Your task to perform on an android device: Do I have any events today? Image 0: 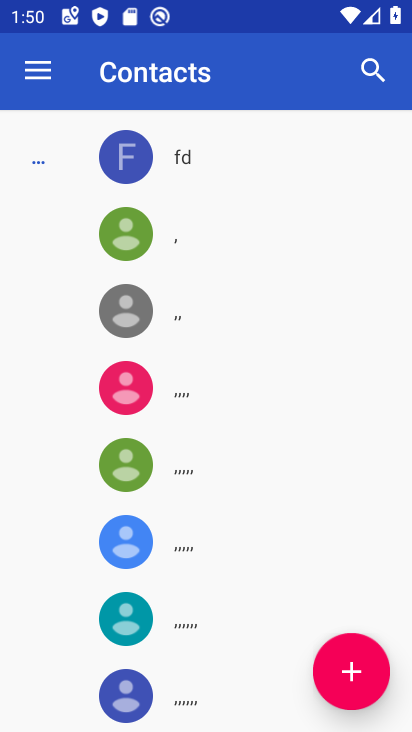
Step 0: press home button
Your task to perform on an android device: Do I have any events today? Image 1: 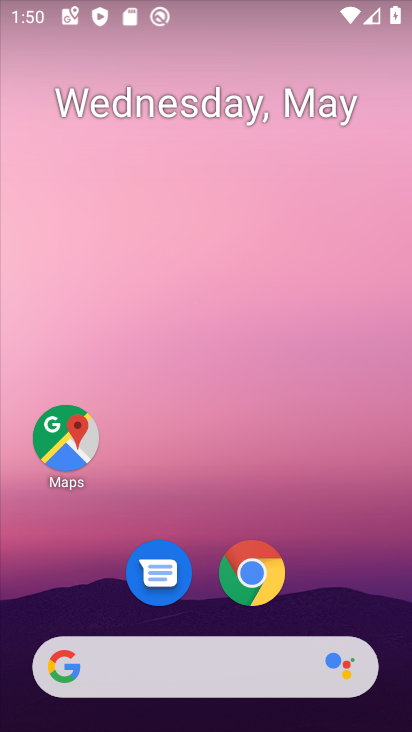
Step 1: drag from (297, 619) to (343, 65)
Your task to perform on an android device: Do I have any events today? Image 2: 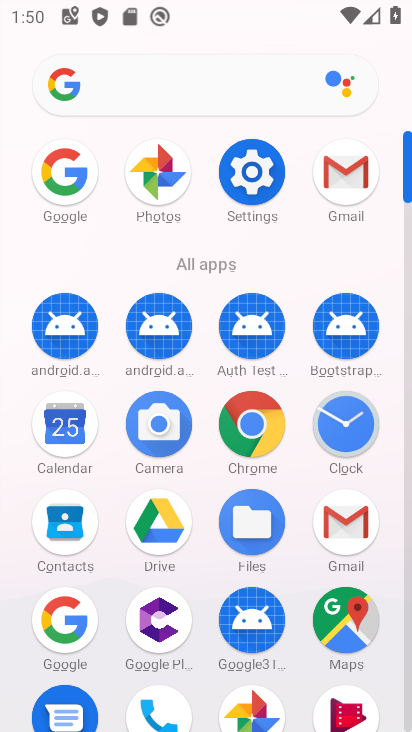
Step 2: click (67, 417)
Your task to perform on an android device: Do I have any events today? Image 3: 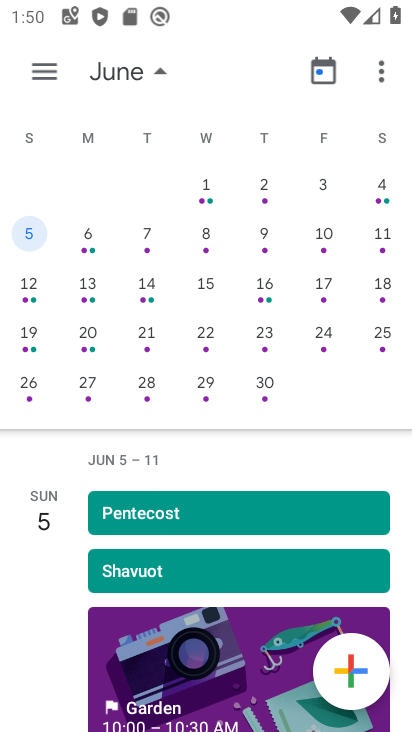
Step 3: drag from (33, 328) to (382, 304)
Your task to perform on an android device: Do I have any events today? Image 4: 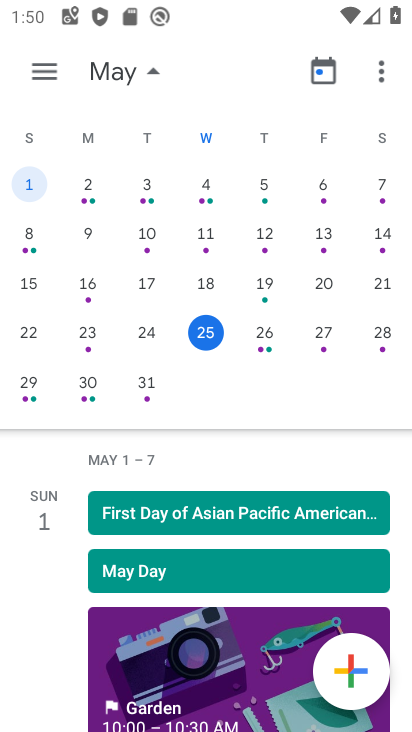
Step 4: click (222, 330)
Your task to perform on an android device: Do I have any events today? Image 5: 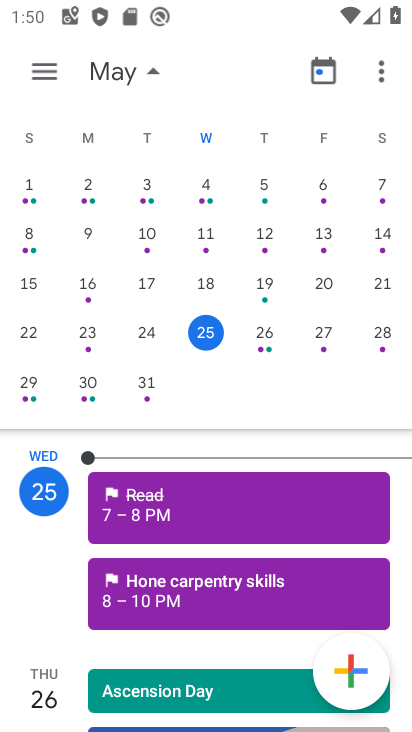
Step 5: task complete